Your task to perform on an android device: Is it going to rain tomorrow? Image 0: 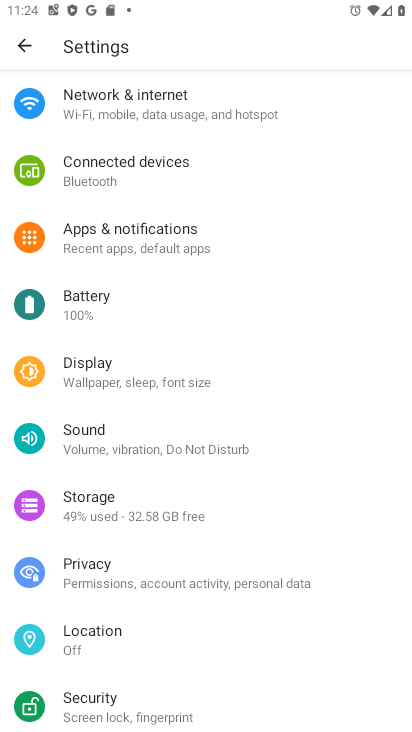
Step 0: press home button
Your task to perform on an android device: Is it going to rain tomorrow? Image 1: 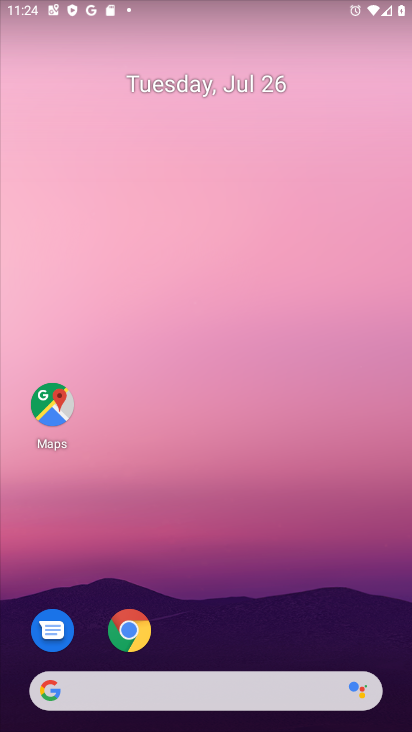
Step 1: click (271, 693)
Your task to perform on an android device: Is it going to rain tomorrow? Image 2: 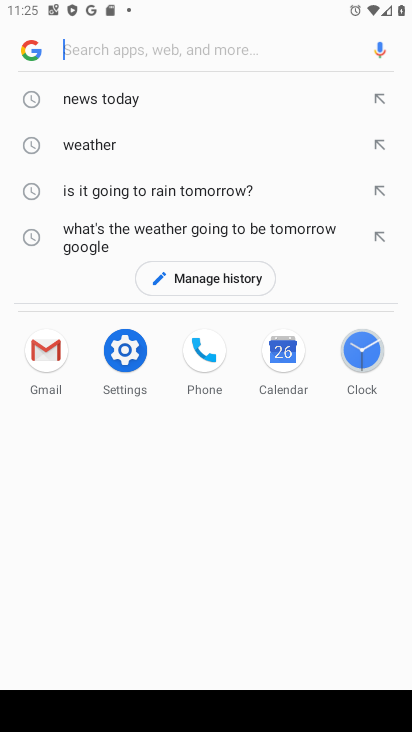
Step 2: type "Is it going to rain tomorrow?"
Your task to perform on an android device: Is it going to rain tomorrow? Image 3: 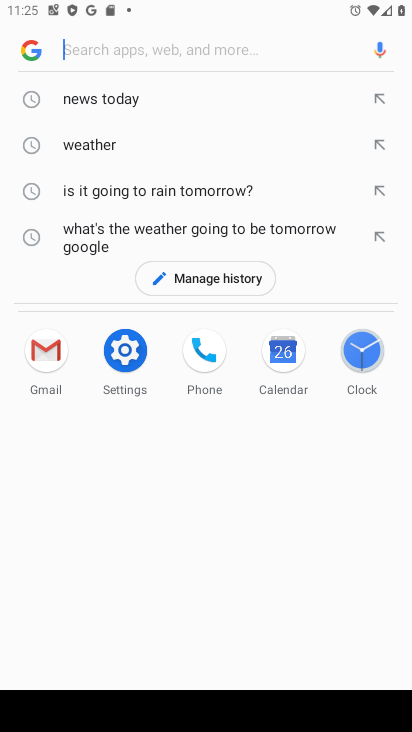
Step 3: click (243, 189)
Your task to perform on an android device: Is it going to rain tomorrow? Image 4: 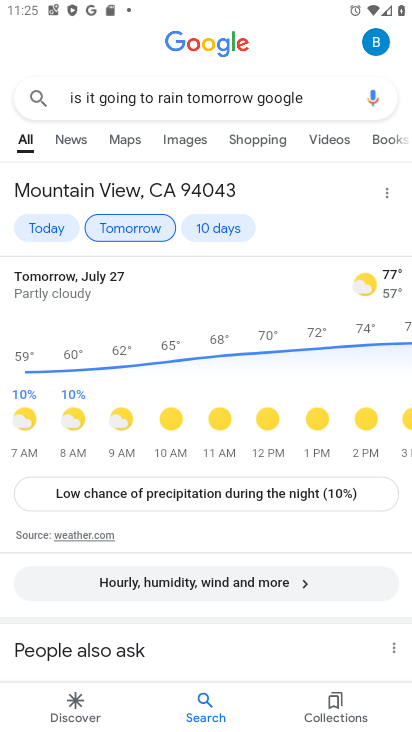
Step 4: press enter
Your task to perform on an android device: Is it going to rain tomorrow? Image 5: 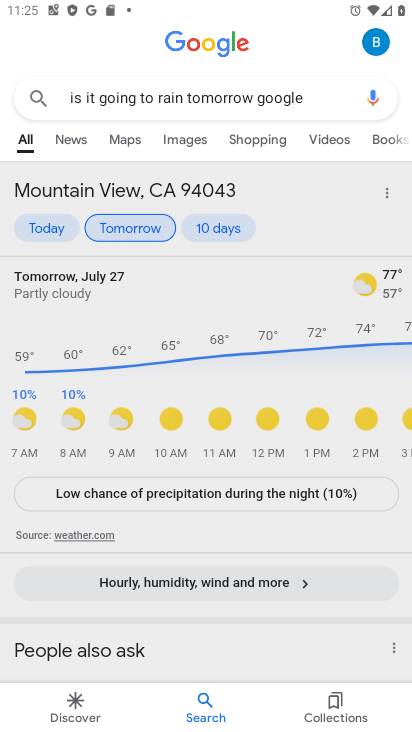
Step 5: task complete